Your task to perform on an android device: show emergency info Image 0: 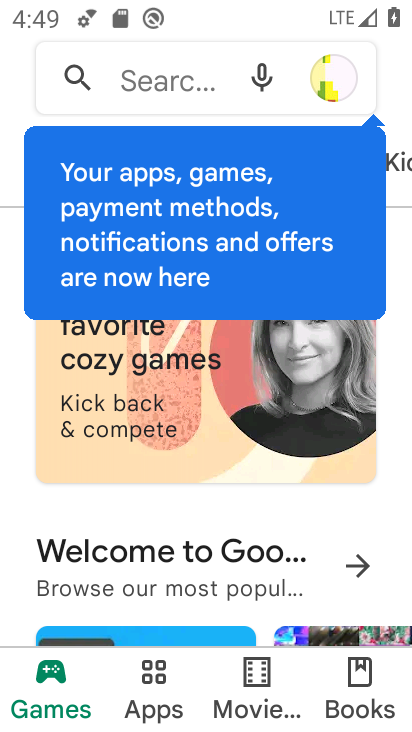
Step 0: press home button
Your task to perform on an android device: show emergency info Image 1: 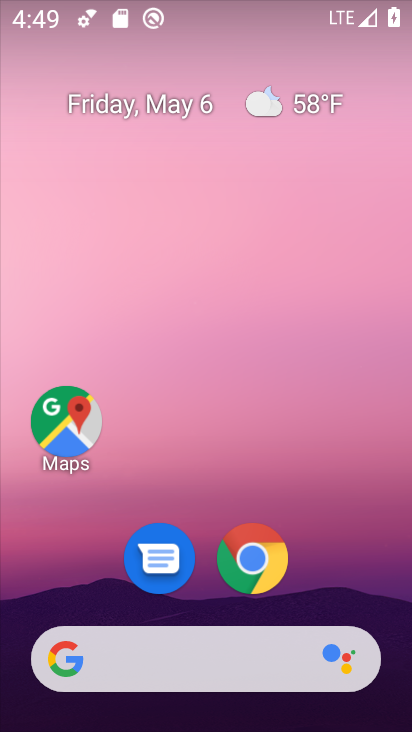
Step 1: drag from (272, 607) to (284, 25)
Your task to perform on an android device: show emergency info Image 2: 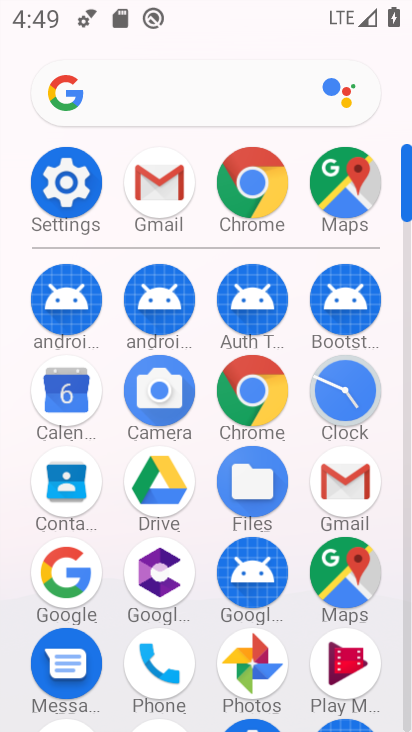
Step 2: drag from (307, 580) to (305, 199)
Your task to perform on an android device: show emergency info Image 3: 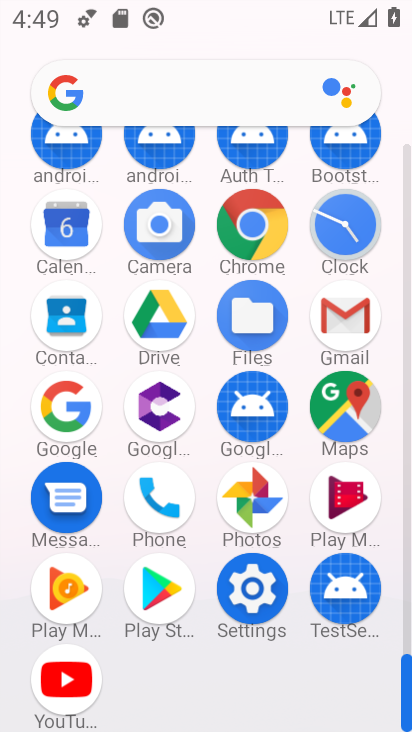
Step 3: click (249, 592)
Your task to perform on an android device: show emergency info Image 4: 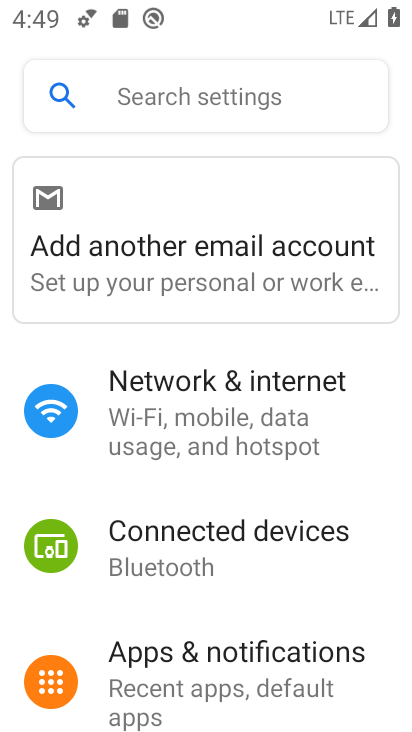
Step 4: drag from (318, 702) to (312, 8)
Your task to perform on an android device: show emergency info Image 5: 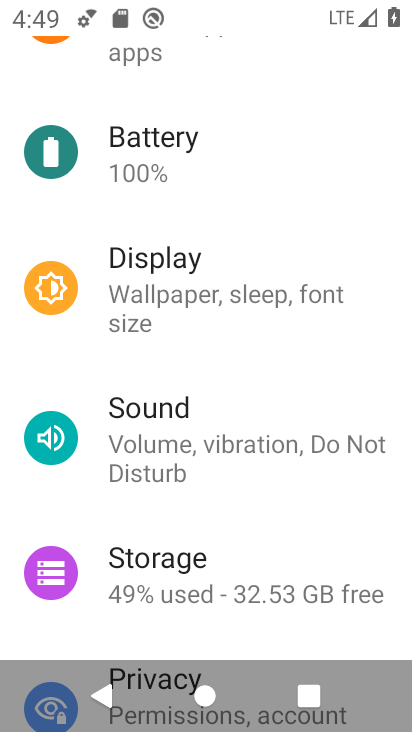
Step 5: drag from (280, 666) to (251, 1)
Your task to perform on an android device: show emergency info Image 6: 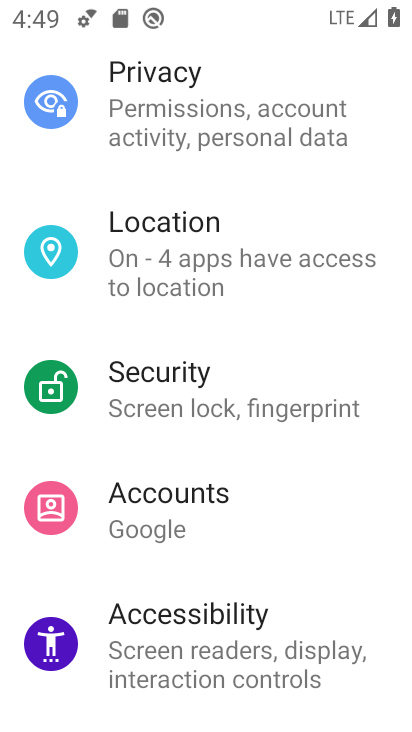
Step 6: drag from (260, 658) to (249, 179)
Your task to perform on an android device: show emergency info Image 7: 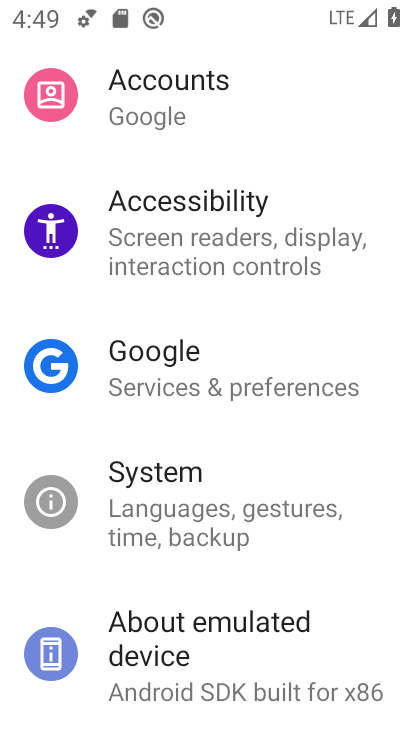
Step 7: click (241, 689)
Your task to perform on an android device: show emergency info Image 8: 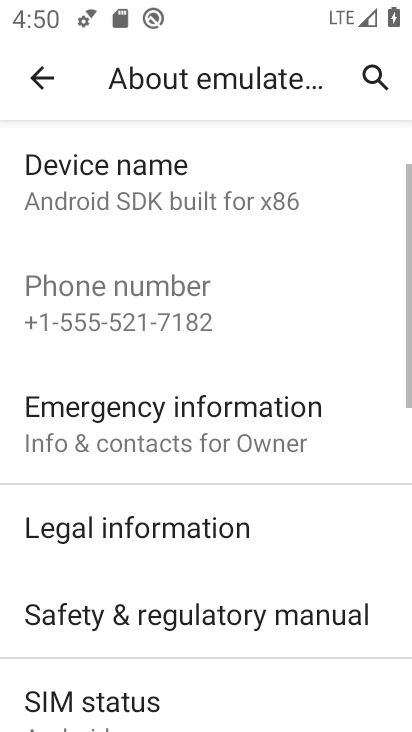
Step 8: click (212, 425)
Your task to perform on an android device: show emergency info Image 9: 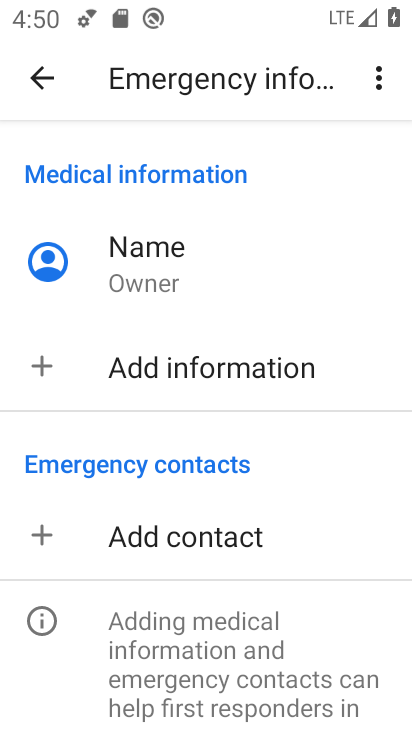
Step 9: task complete